Your task to perform on an android device: add a contact Image 0: 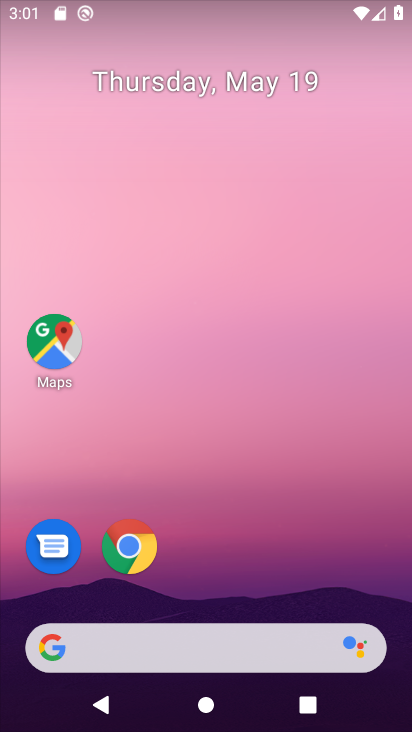
Step 0: drag from (227, 607) to (218, 176)
Your task to perform on an android device: add a contact Image 1: 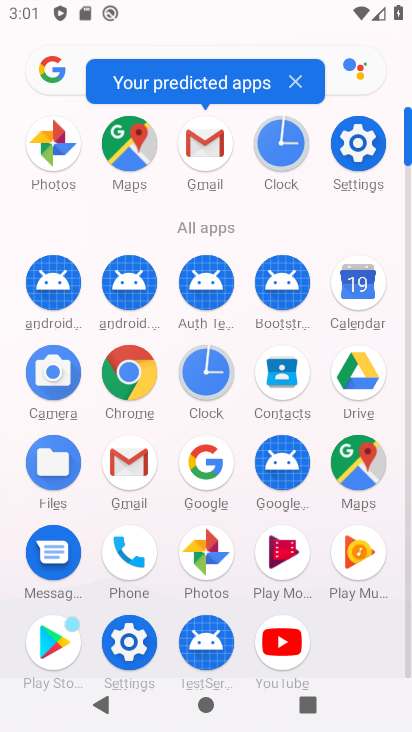
Step 1: click (284, 375)
Your task to perform on an android device: add a contact Image 2: 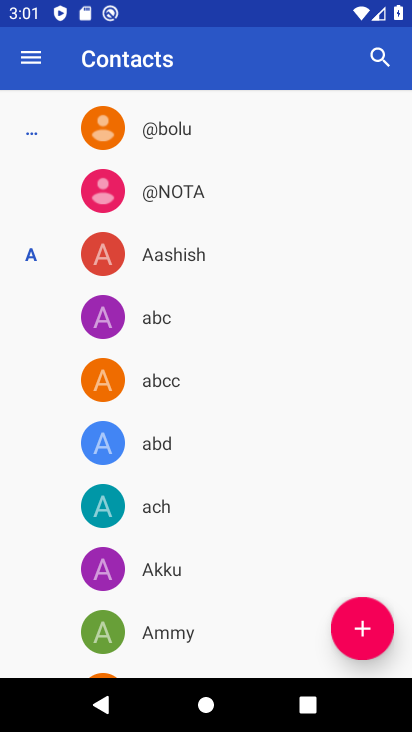
Step 2: click (361, 618)
Your task to perform on an android device: add a contact Image 3: 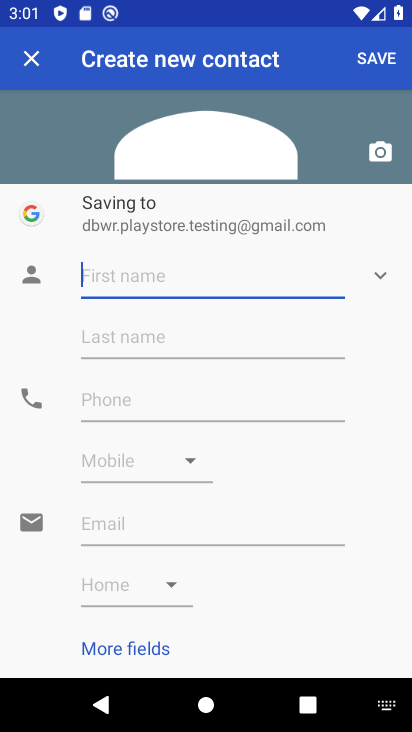
Step 3: type "gjgjhjh"
Your task to perform on an android device: add a contact Image 4: 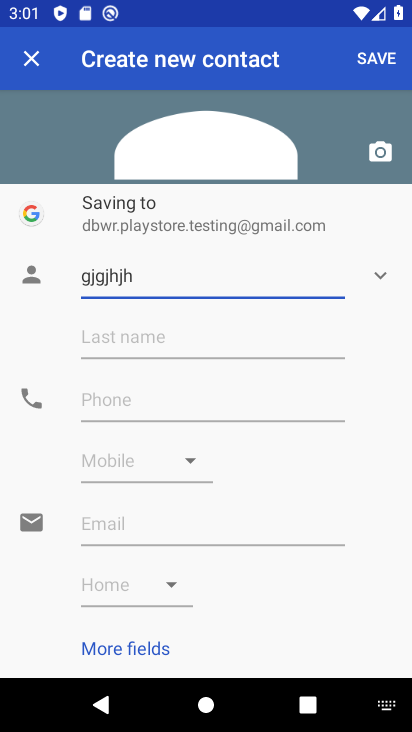
Step 4: click (324, 399)
Your task to perform on an android device: add a contact Image 5: 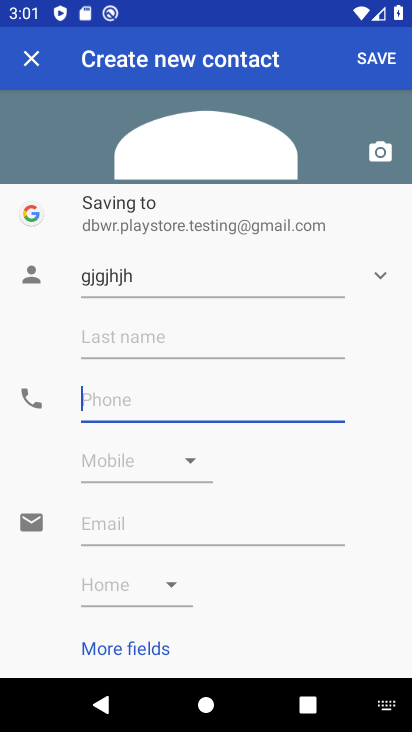
Step 5: type "79869767"
Your task to perform on an android device: add a contact Image 6: 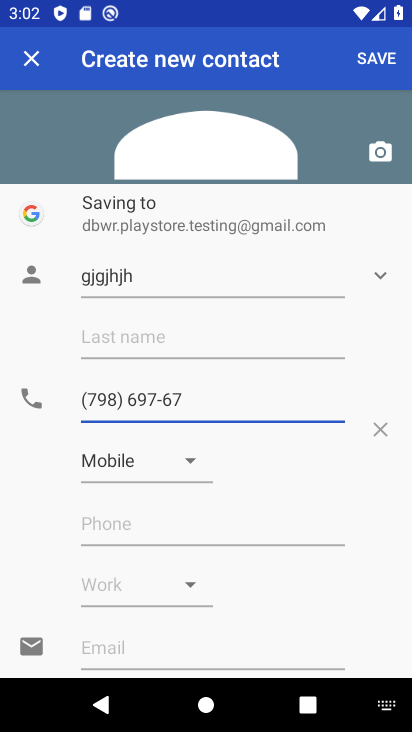
Step 6: click (376, 60)
Your task to perform on an android device: add a contact Image 7: 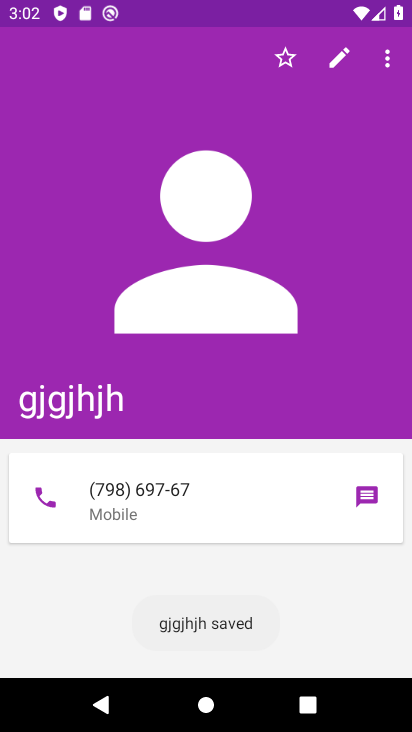
Step 7: task complete